Your task to perform on an android device: turn off javascript in the chrome app Image 0: 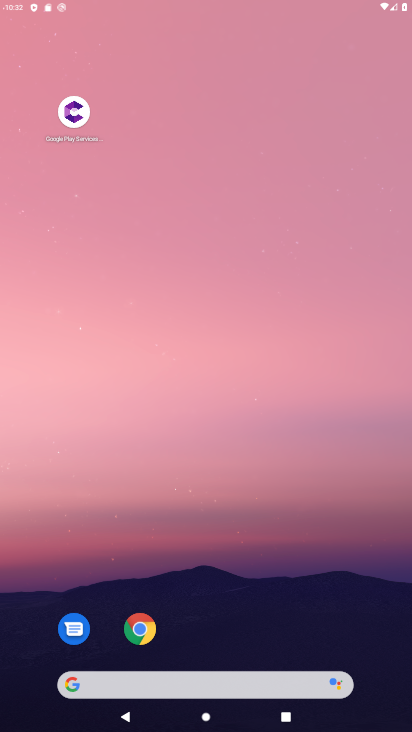
Step 0: click (195, 82)
Your task to perform on an android device: turn off javascript in the chrome app Image 1: 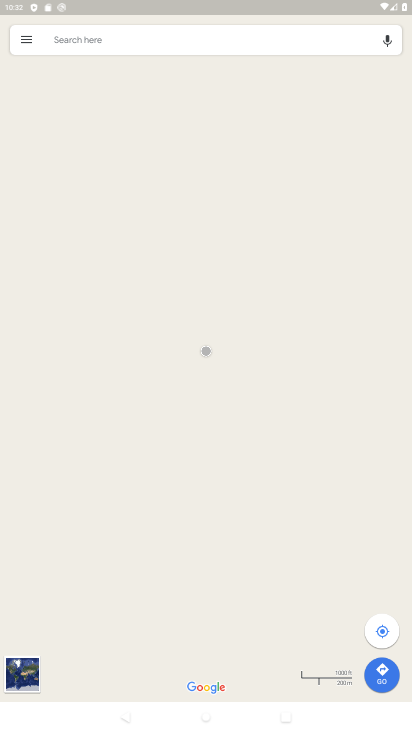
Step 1: press home button
Your task to perform on an android device: turn off javascript in the chrome app Image 2: 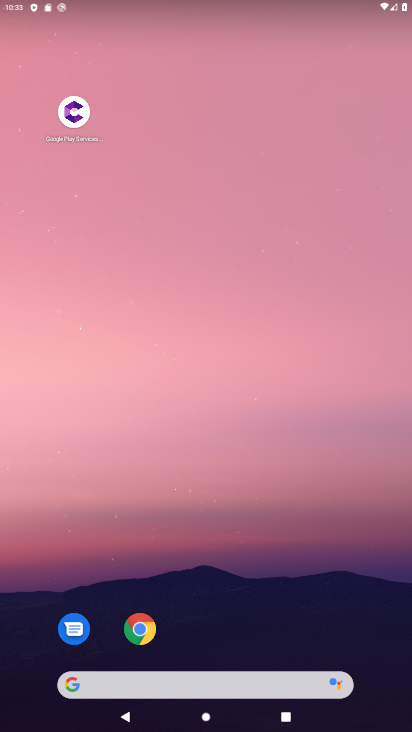
Step 2: drag from (202, 662) to (197, 6)
Your task to perform on an android device: turn off javascript in the chrome app Image 3: 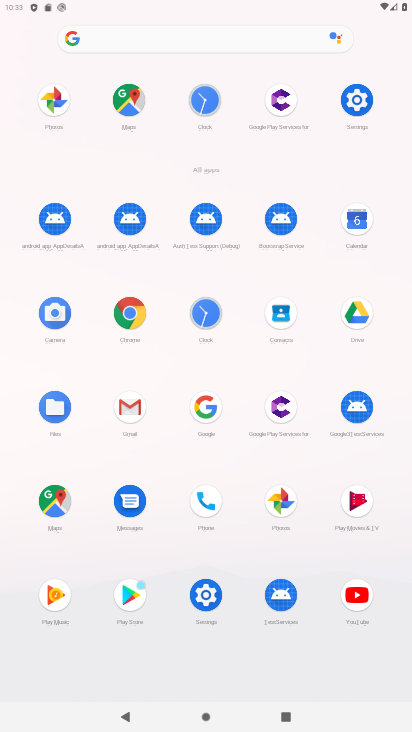
Step 3: click (127, 309)
Your task to perform on an android device: turn off javascript in the chrome app Image 4: 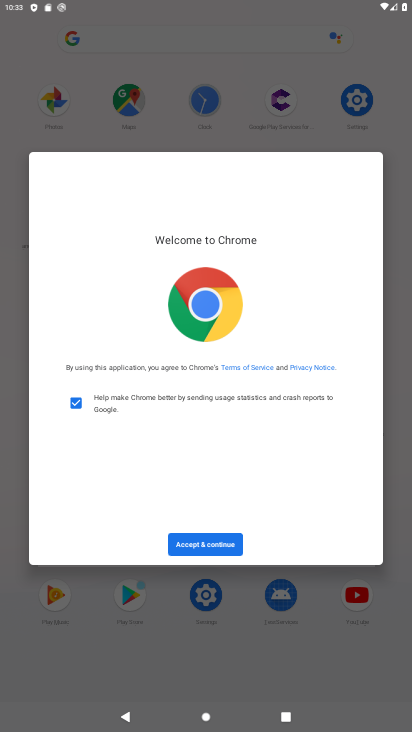
Step 4: click (197, 535)
Your task to perform on an android device: turn off javascript in the chrome app Image 5: 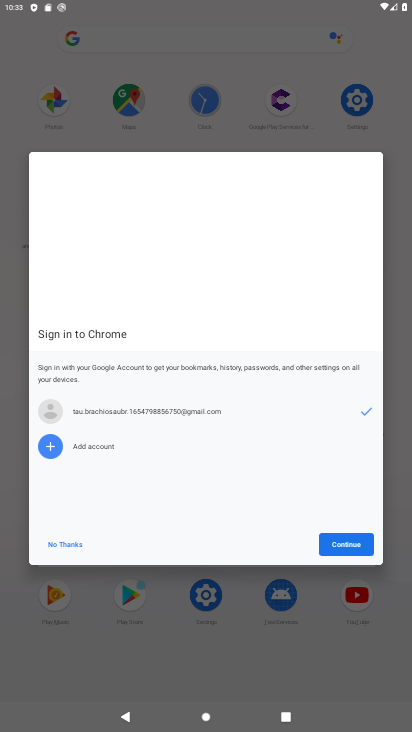
Step 5: click (326, 548)
Your task to perform on an android device: turn off javascript in the chrome app Image 6: 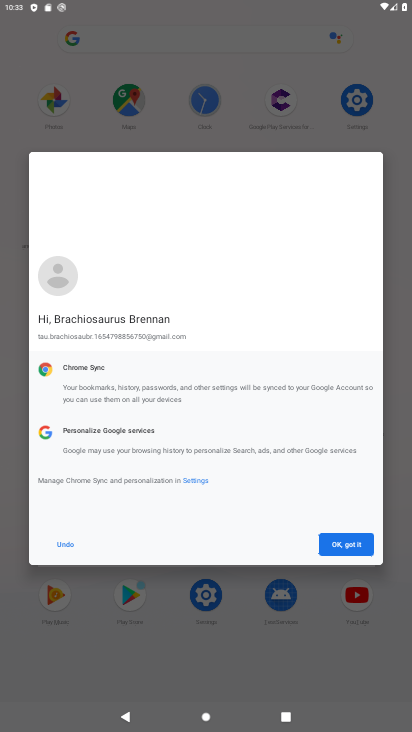
Step 6: click (327, 547)
Your task to perform on an android device: turn off javascript in the chrome app Image 7: 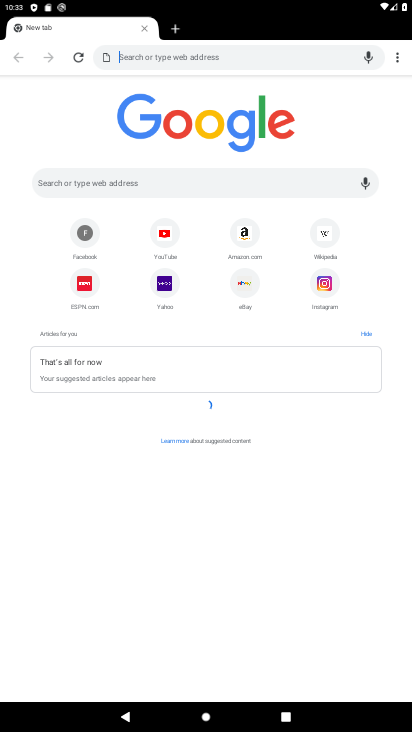
Step 7: click (397, 58)
Your task to perform on an android device: turn off javascript in the chrome app Image 8: 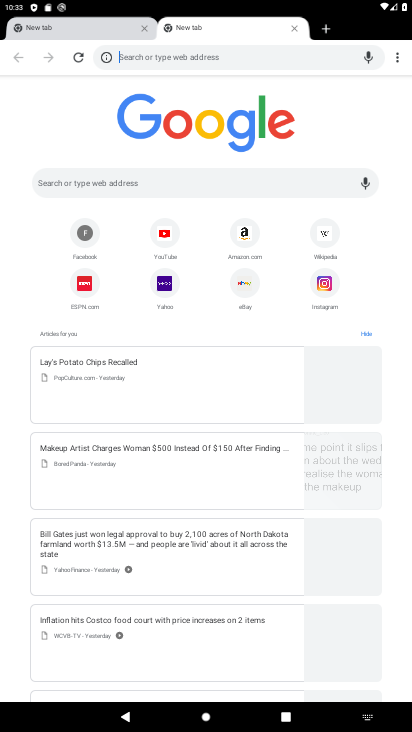
Step 8: click (395, 62)
Your task to perform on an android device: turn off javascript in the chrome app Image 9: 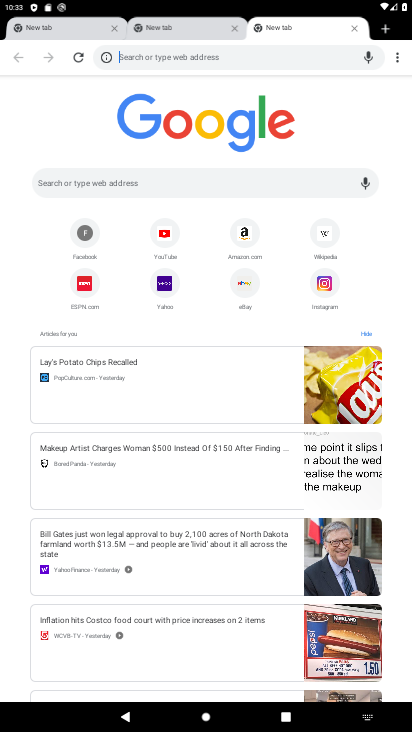
Step 9: click (356, 25)
Your task to perform on an android device: turn off javascript in the chrome app Image 10: 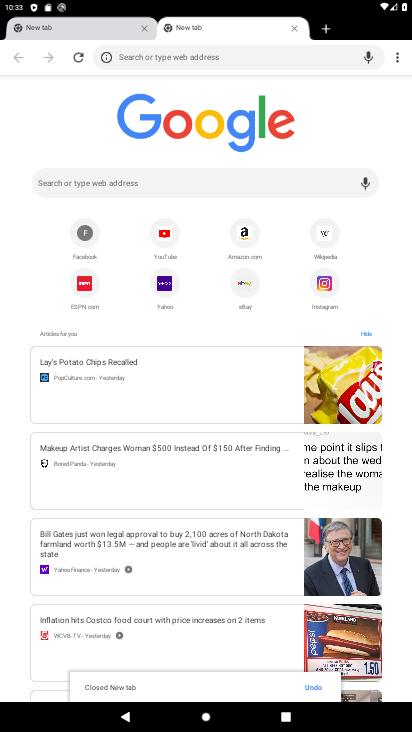
Step 10: click (237, 27)
Your task to perform on an android device: turn off javascript in the chrome app Image 11: 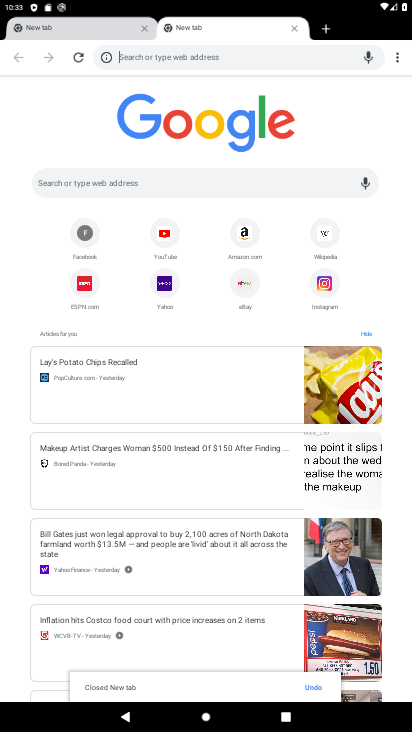
Step 11: click (291, 28)
Your task to perform on an android device: turn off javascript in the chrome app Image 12: 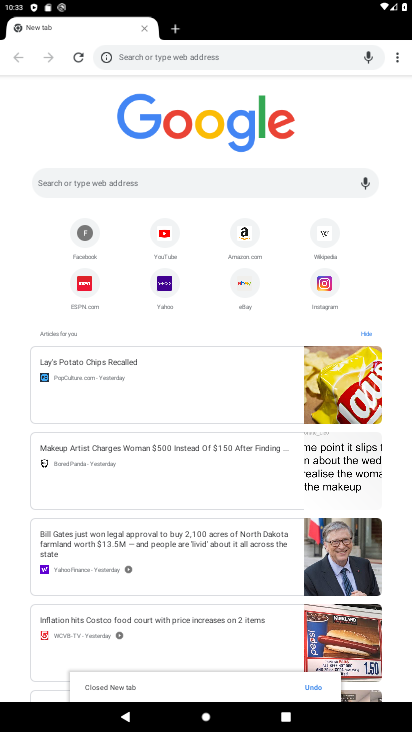
Step 12: click (394, 61)
Your task to perform on an android device: turn off javascript in the chrome app Image 13: 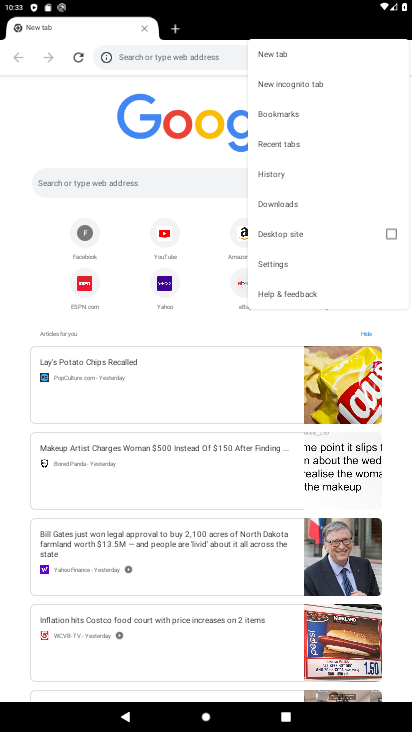
Step 13: click (289, 263)
Your task to perform on an android device: turn off javascript in the chrome app Image 14: 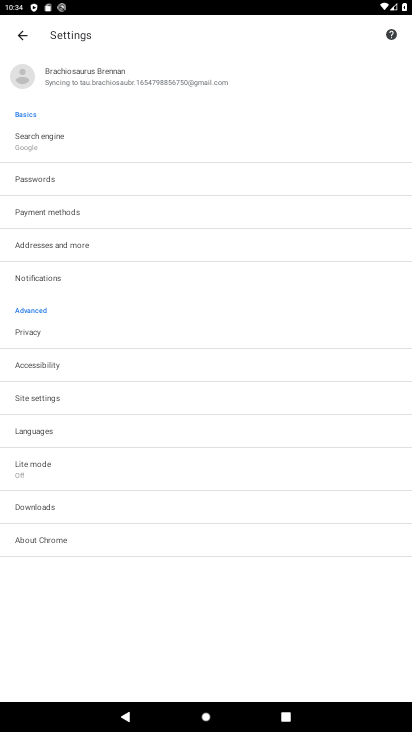
Step 14: click (64, 401)
Your task to perform on an android device: turn off javascript in the chrome app Image 15: 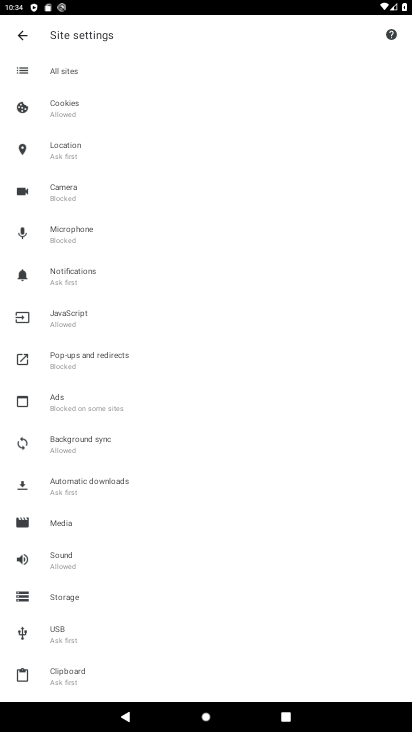
Step 15: click (87, 325)
Your task to perform on an android device: turn off javascript in the chrome app Image 16: 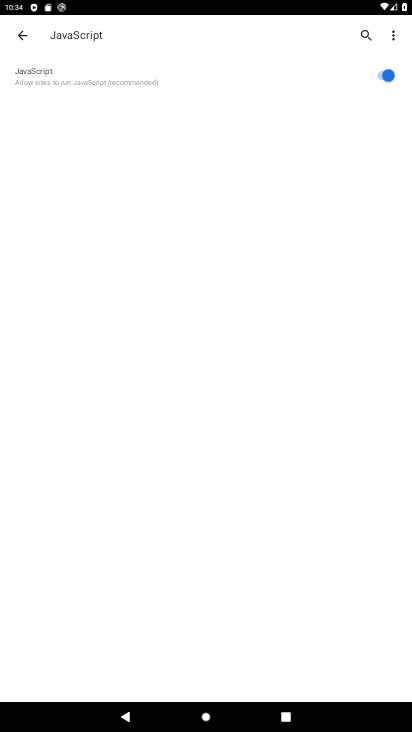
Step 16: click (384, 72)
Your task to perform on an android device: turn off javascript in the chrome app Image 17: 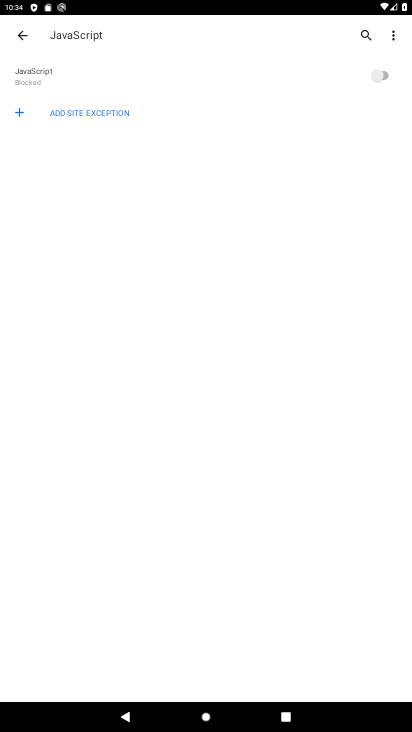
Step 17: task complete